Your task to perform on an android device: Go to Google maps Image 0: 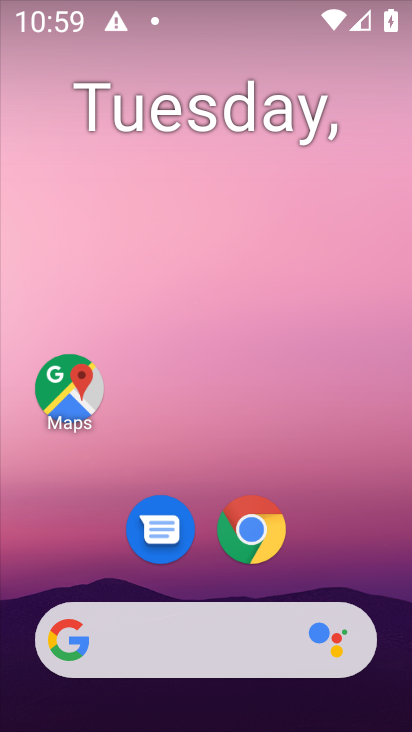
Step 0: click (73, 370)
Your task to perform on an android device: Go to Google maps Image 1: 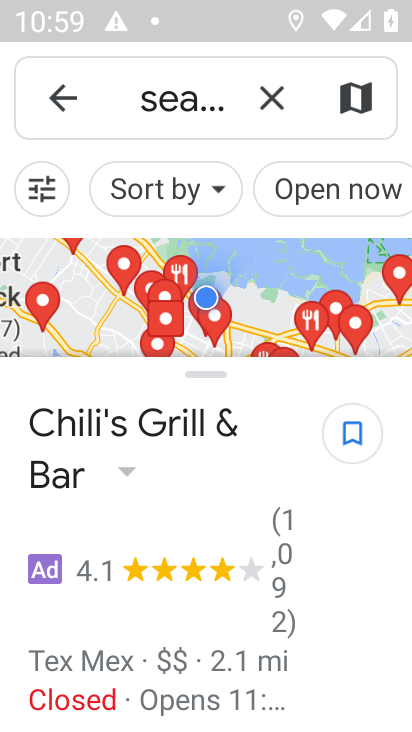
Step 1: task complete